Your task to perform on an android device: turn on the 24-hour format for clock Image 0: 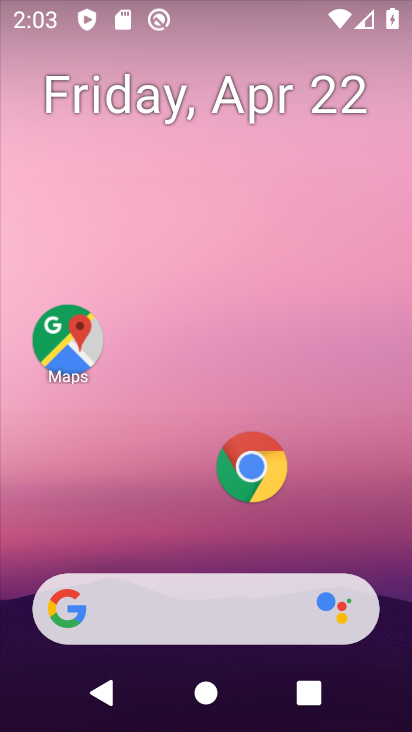
Step 0: drag from (158, 559) to (152, 191)
Your task to perform on an android device: turn on the 24-hour format for clock Image 1: 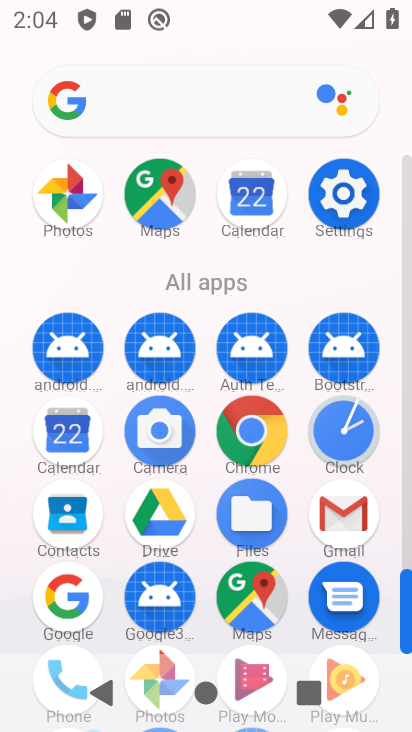
Step 1: click (332, 192)
Your task to perform on an android device: turn on the 24-hour format for clock Image 2: 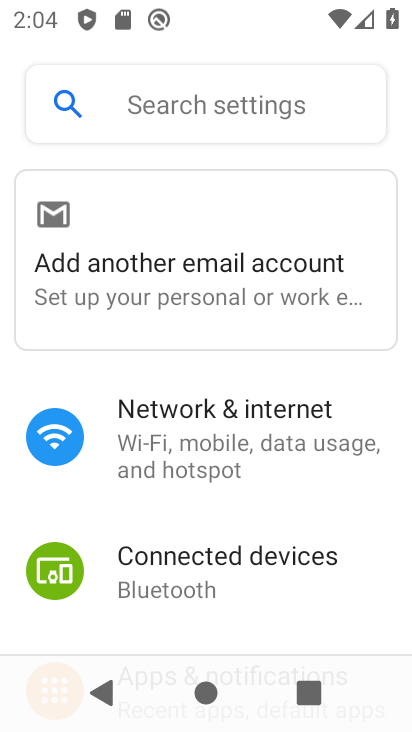
Step 2: press home button
Your task to perform on an android device: turn on the 24-hour format for clock Image 3: 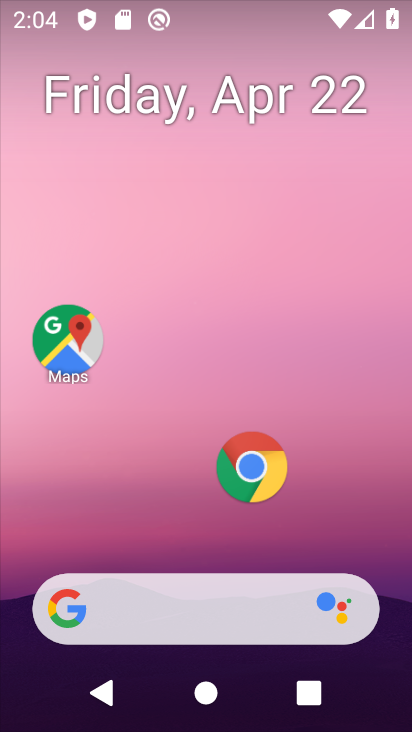
Step 3: drag from (213, 542) to (257, 217)
Your task to perform on an android device: turn on the 24-hour format for clock Image 4: 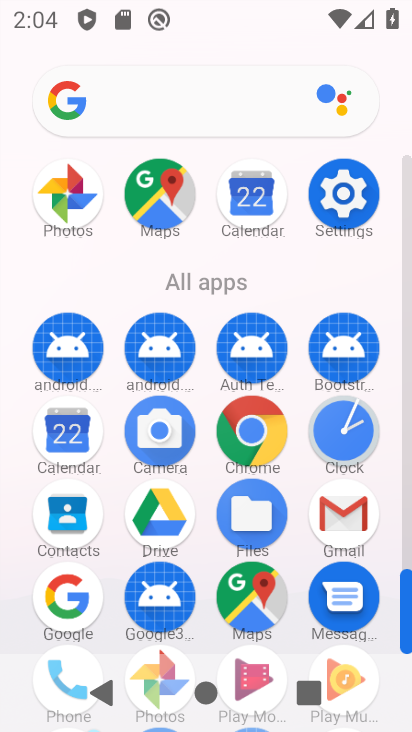
Step 4: click (333, 458)
Your task to perform on an android device: turn on the 24-hour format for clock Image 5: 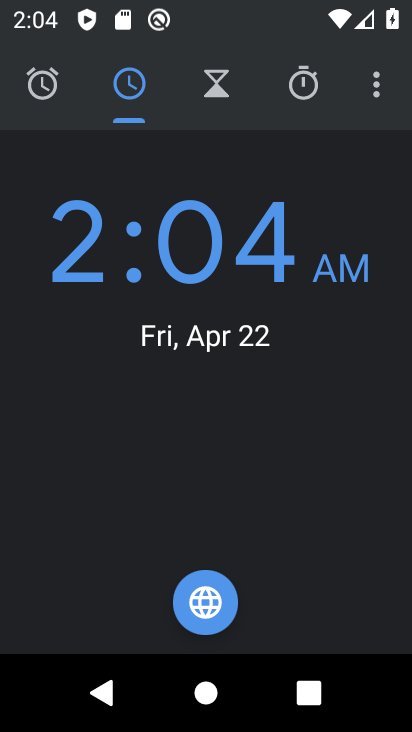
Step 5: click (377, 95)
Your task to perform on an android device: turn on the 24-hour format for clock Image 6: 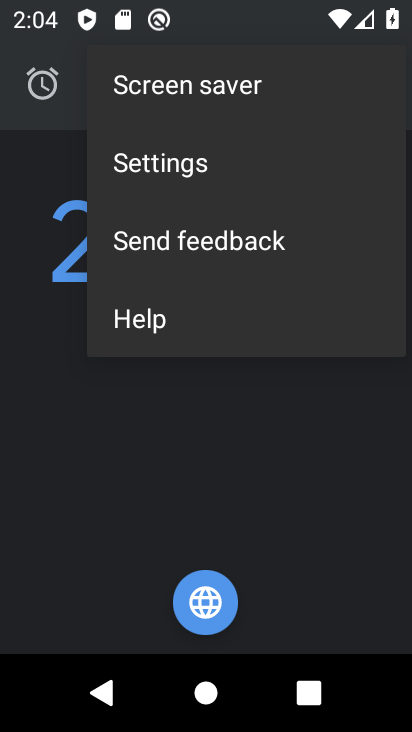
Step 6: click (241, 182)
Your task to perform on an android device: turn on the 24-hour format for clock Image 7: 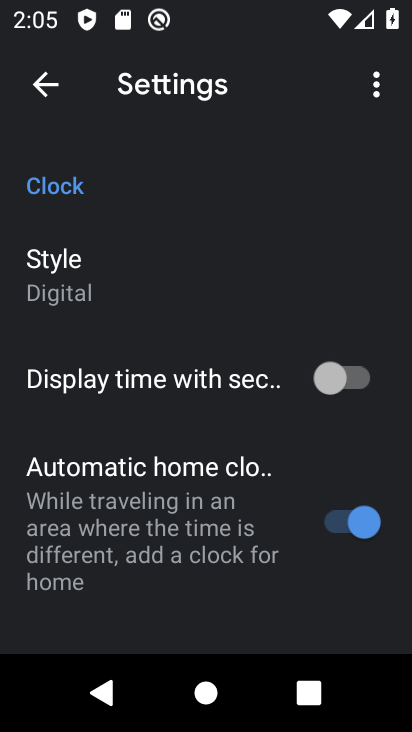
Step 7: drag from (178, 583) to (207, 252)
Your task to perform on an android device: turn on the 24-hour format for clock Image 8: 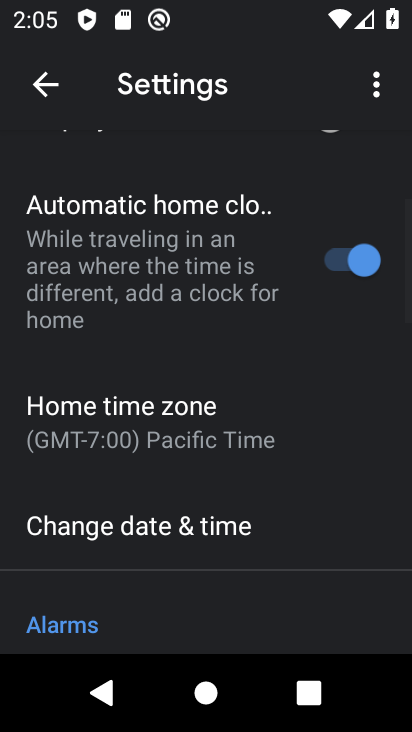
Step 8: click (108, 541)
Your task to perform on an android device: turn on the 24-hour format for clock Image 9: 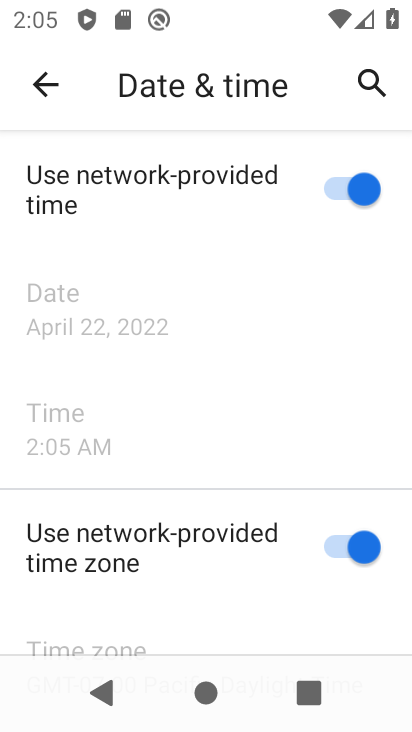
Step 9: drag from (218, 547) to (342, 133)
Your task to perform on an android device: turn on the 24-hour format for clock Image 10: 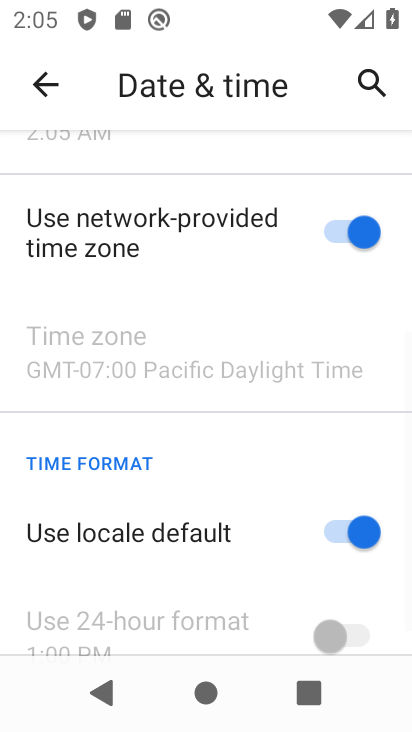
Step 10: drag from (196, 536) to (261, 330)
Your task to perform on an android device: turn on the 24-hour format for clock Image 11: 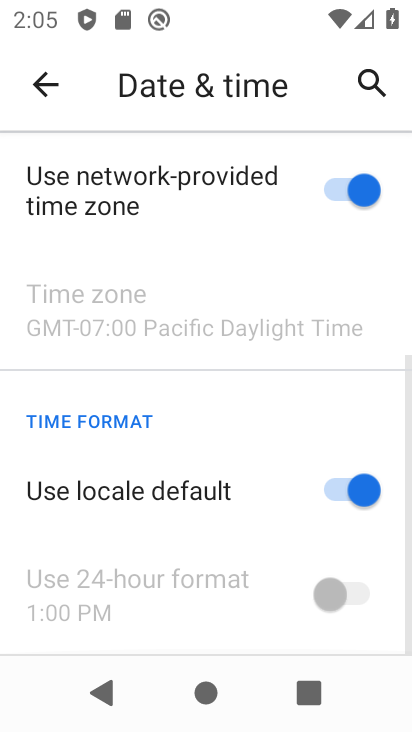
Step 11: click (325, 494)
Your task to perform on an android device: turn on the 24-hour format for clock Image 12: 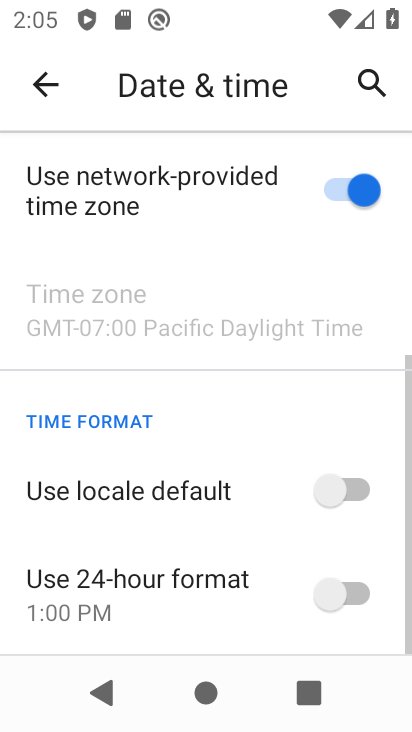
Step 12: click (355, 611)
Your task to perform on an android device: turn on the 24-hour format for clock Image 13: 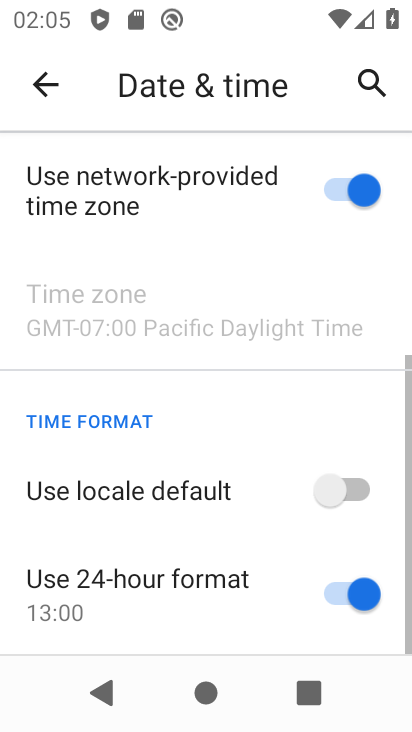
Step 13: task complete